Your task to perform on an android device: Go to CNN.com Image 0: 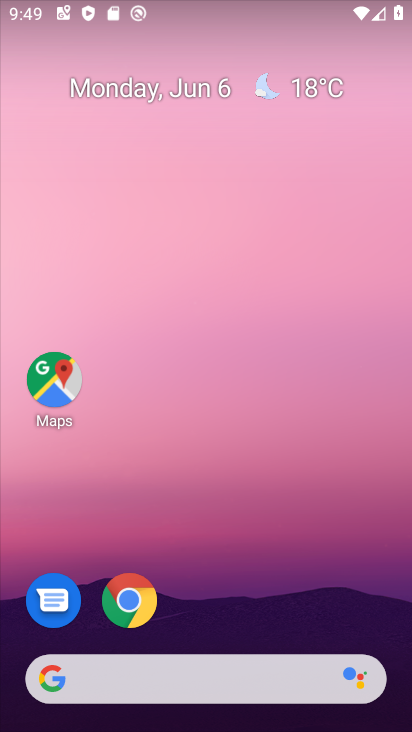
Step 0: drag from (247, 539) to (207, 0)
Your task to perform on an android device: Go to CNN.com Image 1: 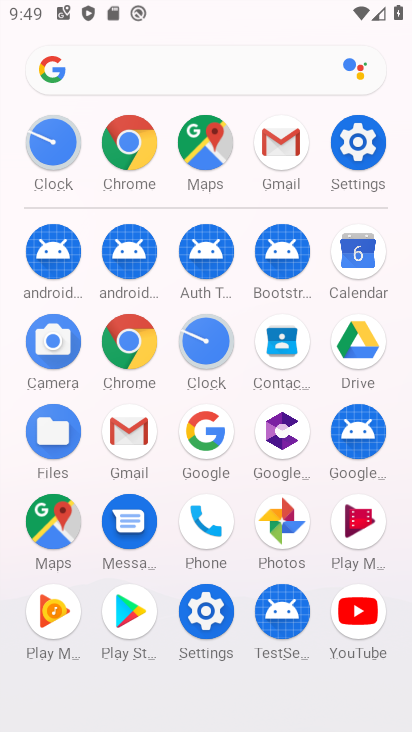
Step 1: click (129, 143)
Your task to perform on an android device: Go to CNN.com Image 2: 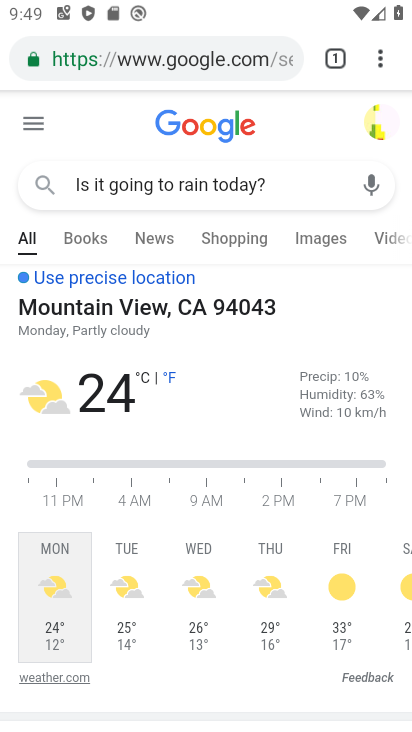
Step 2: click (201, 50)
Your task to perform on an android device: Go to CNN.com Image 3: 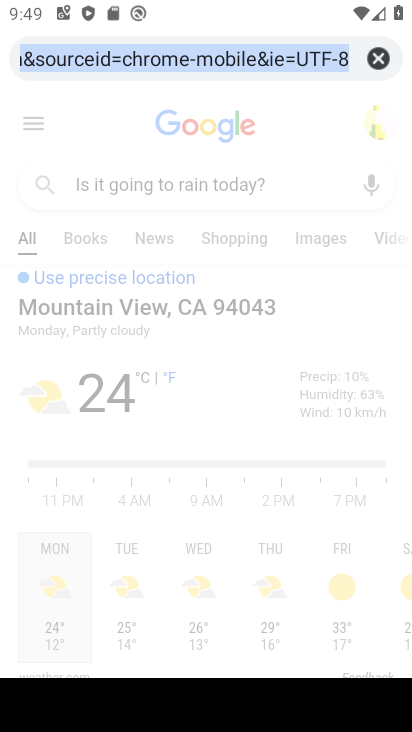
Step 3: click (378, 54)
Your task to perform on an android device: Go to CNN.com Image 4: 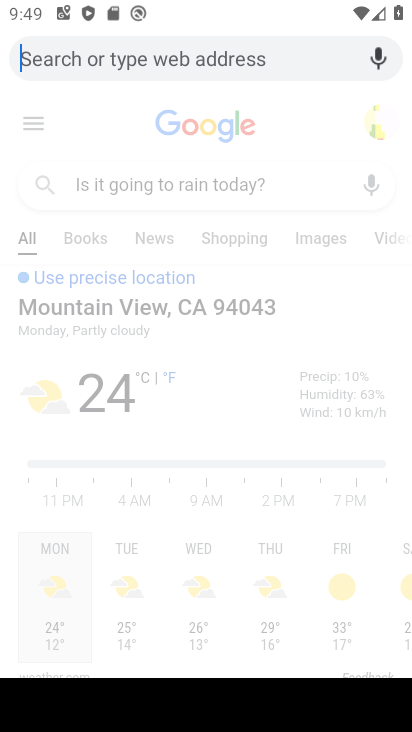
Step 4: type " CNN.com"
Your task to perform on an android device: Go to CNN.com Image 5: 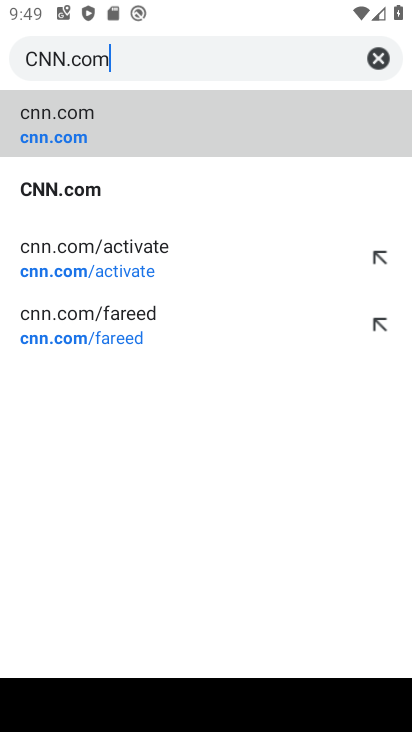
Step 5: type ""
Your task to perform on an android device: Go to CNN.com Image 6: 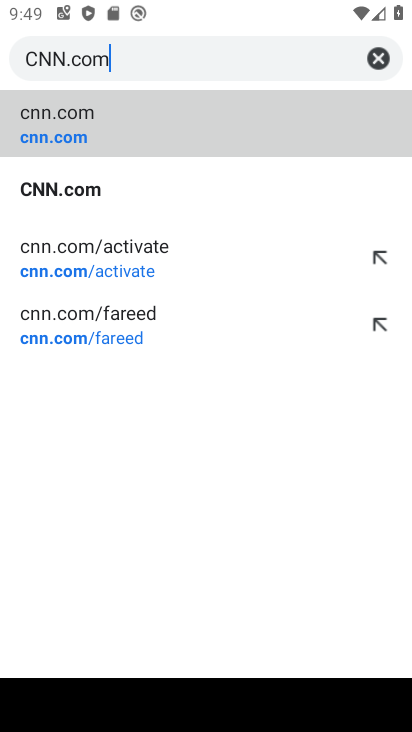
Step 6: click (154, 144)
Your task to perform on an android device: Go to CNN.com Image 7: 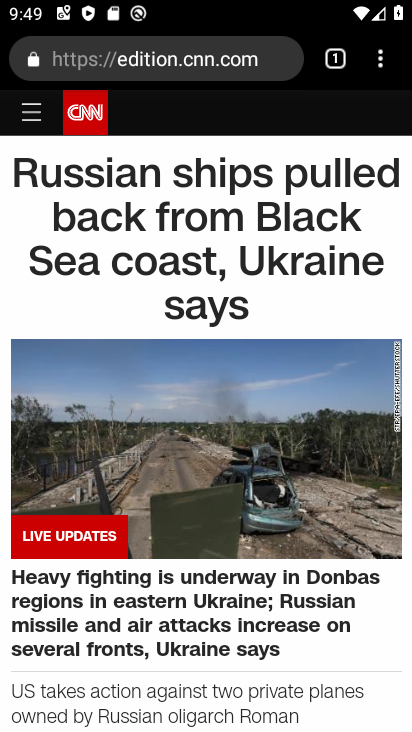
Step 7: drag from (251, 431) to (253, 190)
Your task to perform on an android device: Go to CNN.com Image 8: 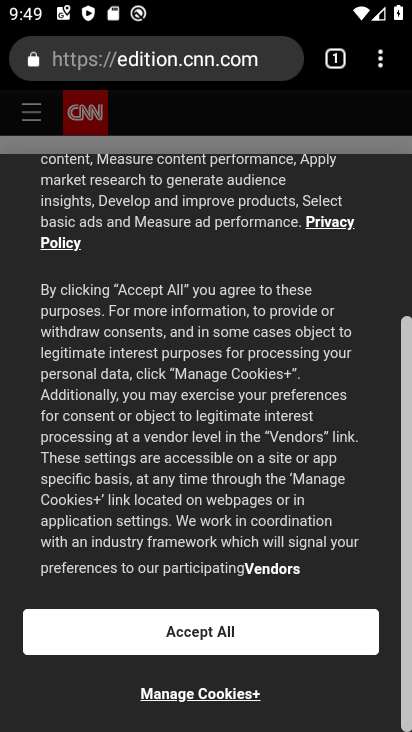
Step 8: click (262, 624)
Your task to perform on an android device: Go to CNN.com Image 9: 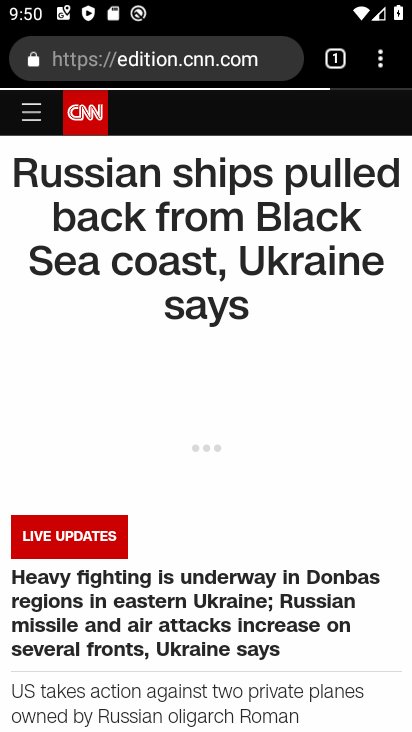
Step 9: task complete